Your task to perform on an android device: toggle data saver in the chrome app Image 0: 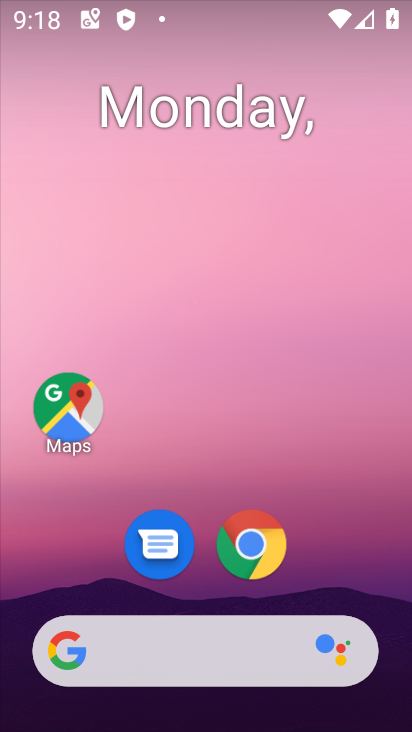
Step 0: click (241, 550)
Your task to perform on an android device: toggle data saver in the chrome app Image 1: 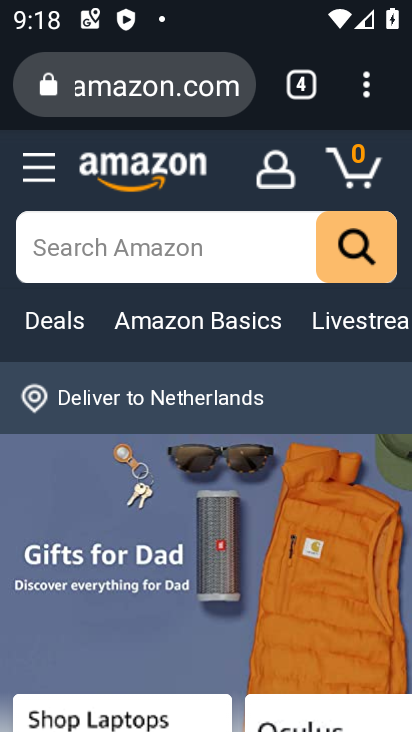
Step 1: click (356, 74)
Your task to perform on an android device: toggle data saver in the chrome app Image 2: 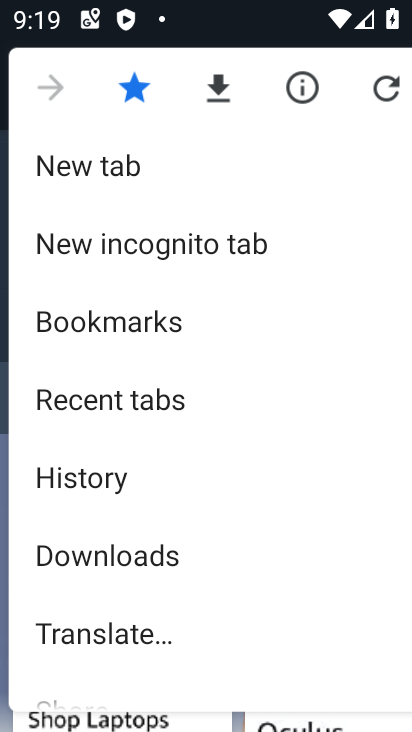
Step 2: drag from (250, 564) to (232, 151)
Your task to perform on an android device: toggle data saver in the chrome app Image 3: 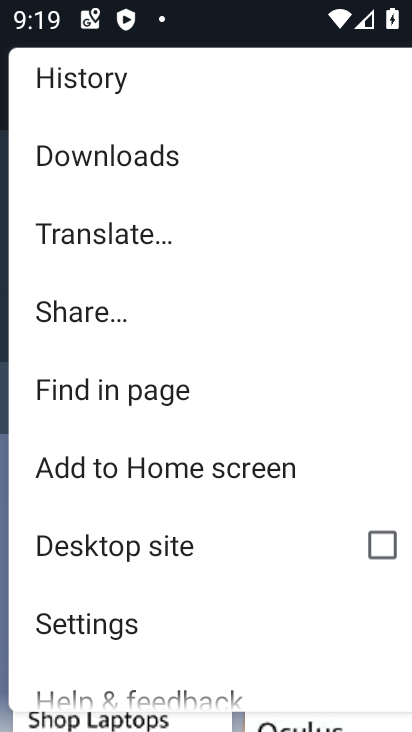
Step 3: drag from (186, 573) to (181, 233)
Your task to perform on an android device: toggle data saver in the chrome app Image 4: 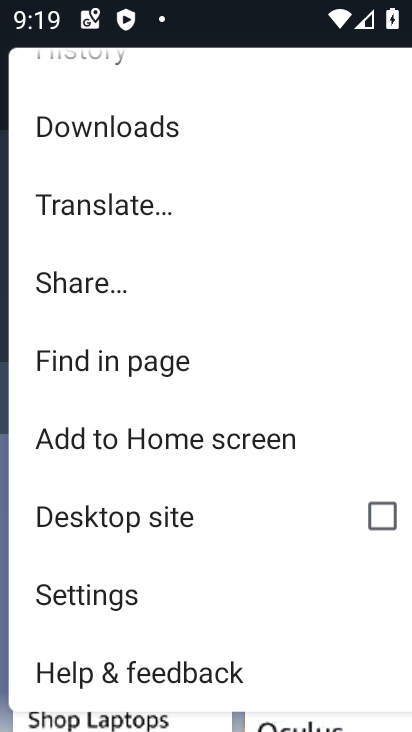
Step 4: click (90, 589)
Your task to perform on an android device: toggle data saver in the chrome app Image 5: 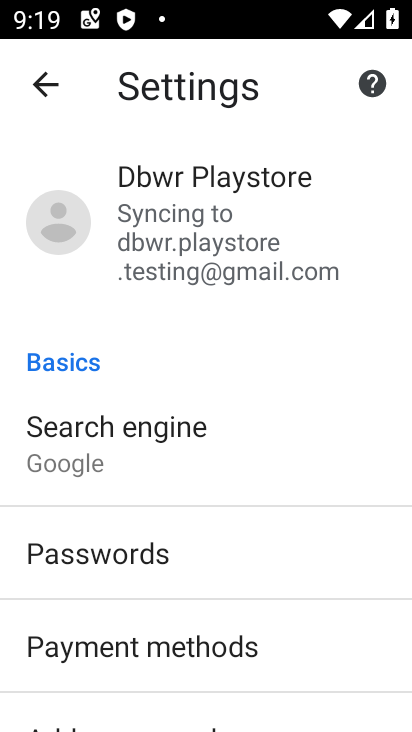
Step 5: drag from (251, 573) to (263, 277)
Your task to perform on an android device: toggle data saver in the chrome app Image 6: 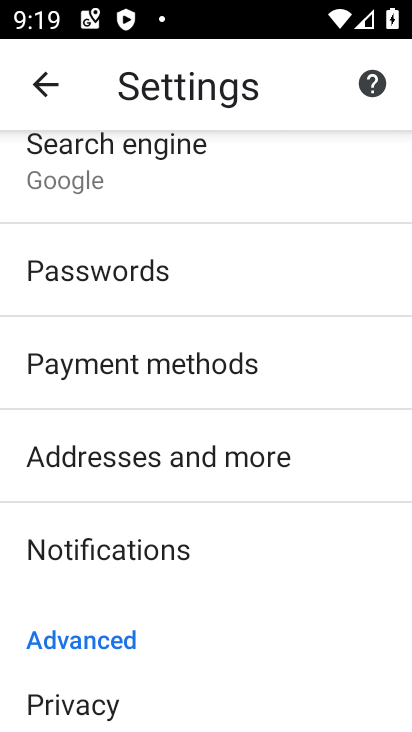
Step 6: drag from (267, 667) to (247, 310)
Your task to perform on an android device: toggle data saver in the chrome app Image 7: 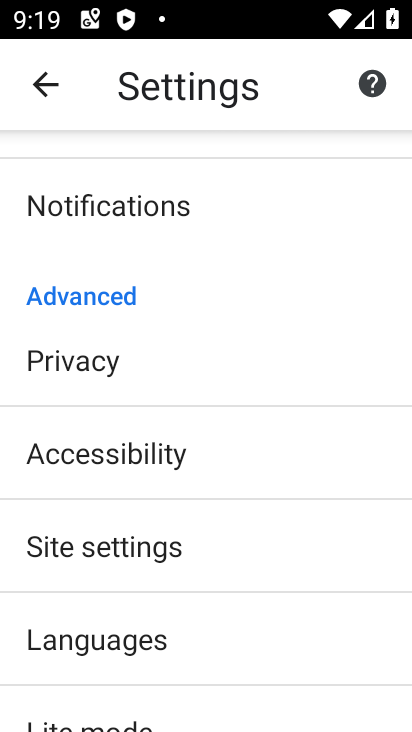
Step 7: drag from (245, 579) to (226, 242)
Your task to perform on an android device: toggle data saver in the chrome app Image 8: 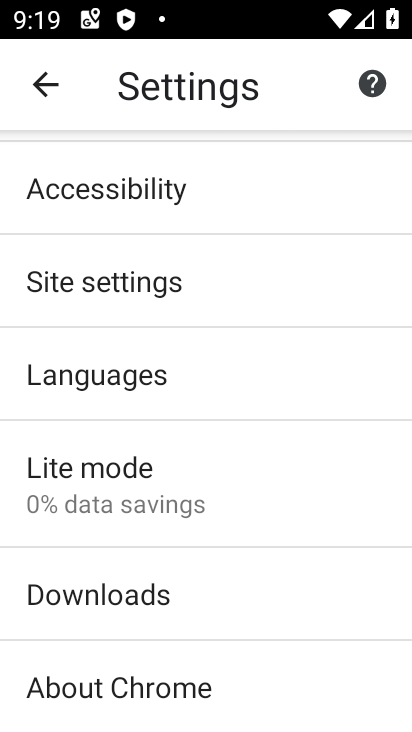
Step 8: click (140, 468)
Your task to perform on an android device: toggle data saver in the chrome app Image 9: 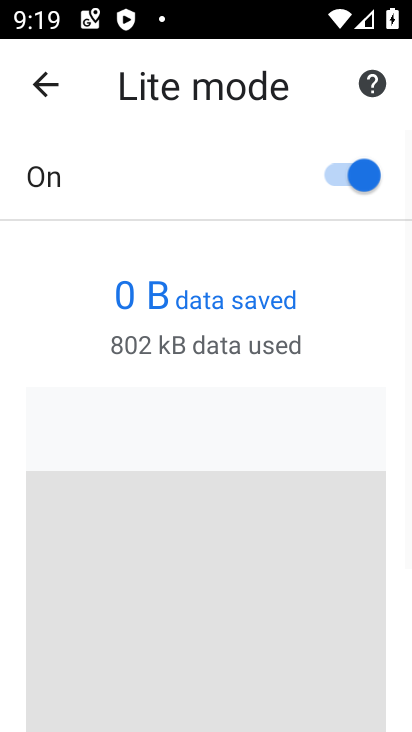
Step 9: click (355, 168)
Your task to perform on an android device: toggle data saver in the chrome app Image 10: 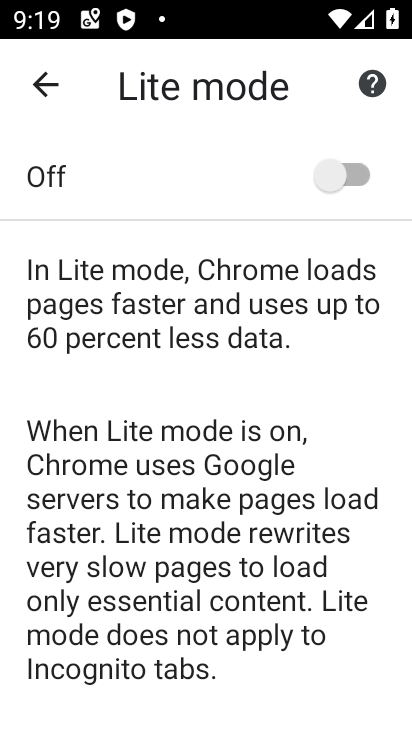
Step 10: task complete